Your task to perform on an android device: Open maps Image 0: 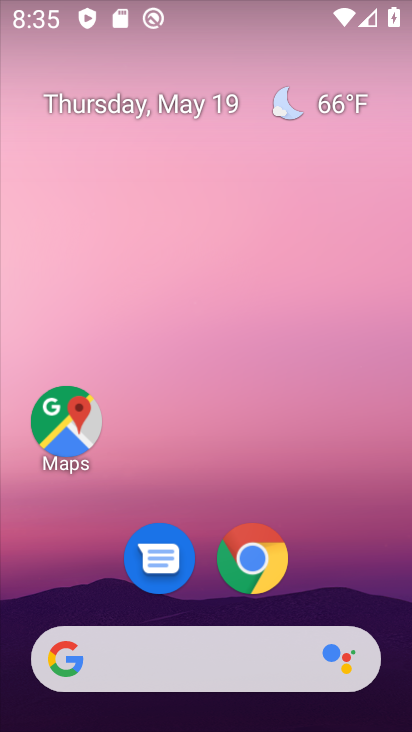
Step 0: click (66, 413)
Your task to perform on an android device: Open maps Image 1: 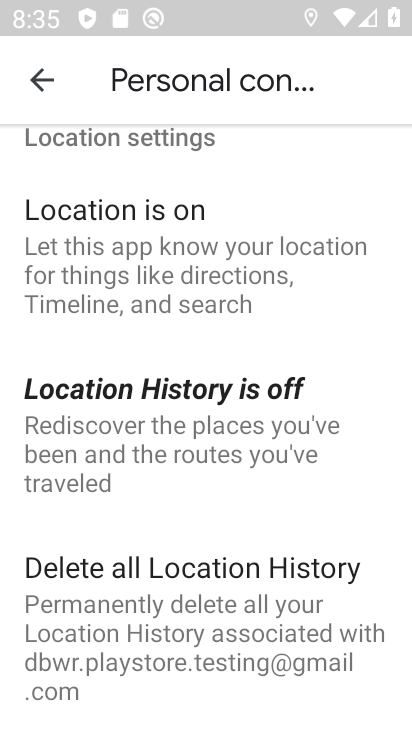
Step 1: click (35, 86)
Your task to perform on an android device: Open maps Image 2: 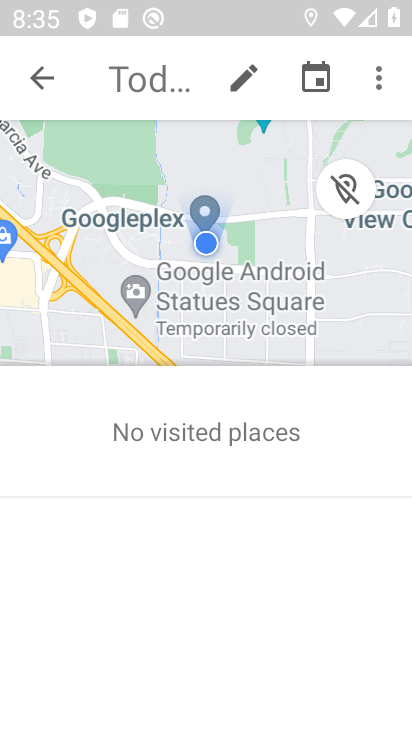
Step 2: task complete